Your task to perform on an android device: Go to calendar. Show me events next week Image 0: 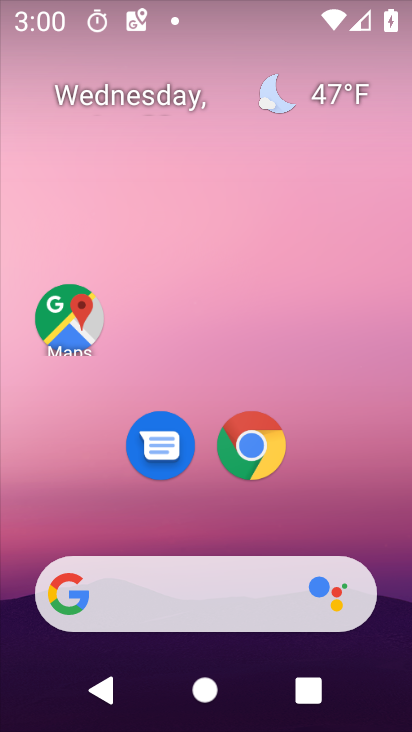
Step 0: drag from (376, 526) to (350, 0)
Your task to perform on an android device: Go to calendar. Show me events next week Image 1: 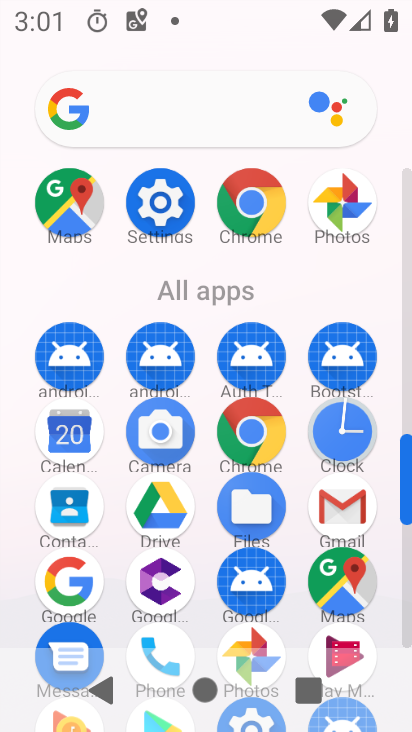
Step 1: click (68, 430)
Your task to perform on an android device: Go to calendar. Show me events next week Image 2: 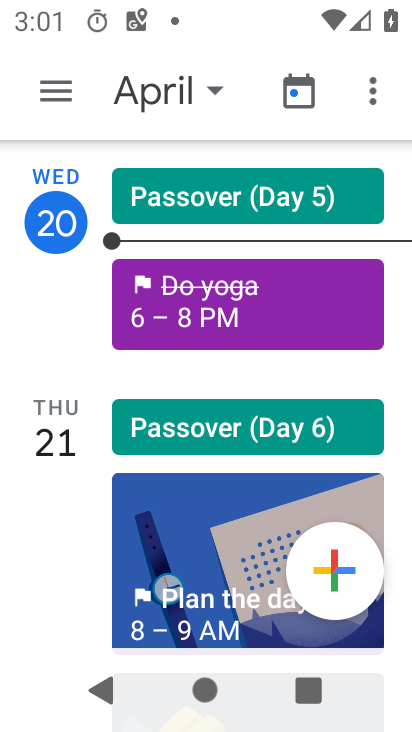
Step 2: click (217, 90)
Your task to perform on an android device: Go to calendar. Show me events next week Image 3: 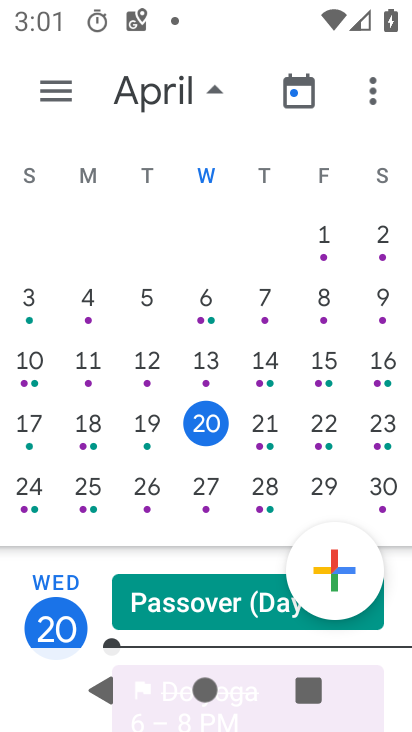
Step 3: click (47, 98)
Your task to perform on an android device: Go to calendar. Show me events next week Image 4: 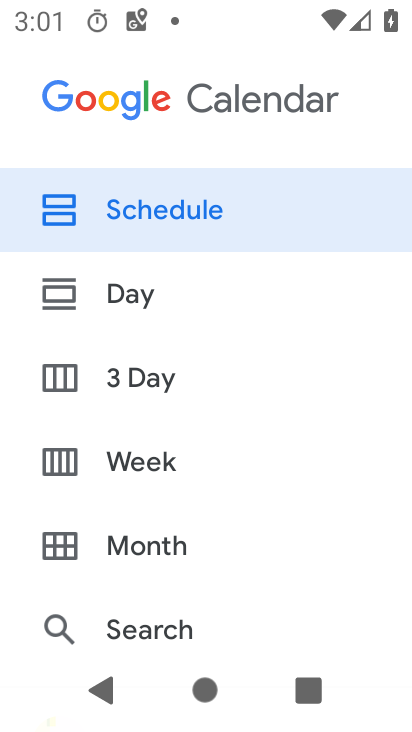
Step 4: click (131, 467)
Your task to perform on an android device: Go to calendar. Show me events next week Image 5: 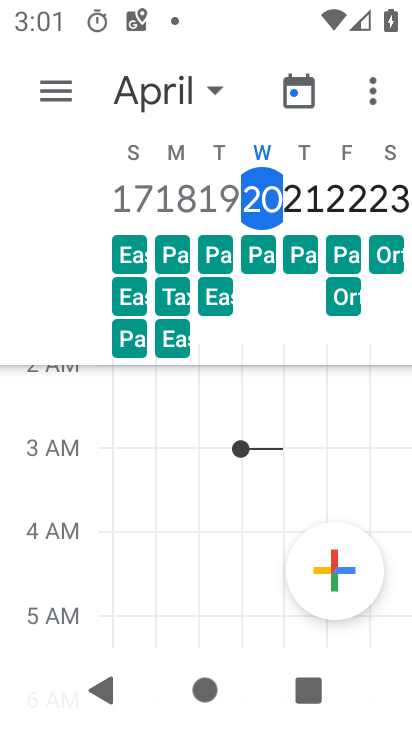
Step 5: drag from (313, 453) to (14, 538)
Your task to perform on an android device: Go to calendar. Show me events next week Image 6: 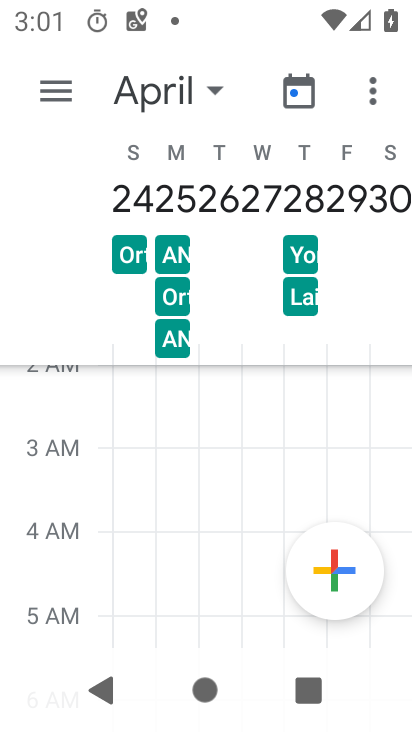
Step 6: drag from (252, 595) to (228, 303)
Your task to perform on an android device: Go to calendar. Show me events next week Image 7: 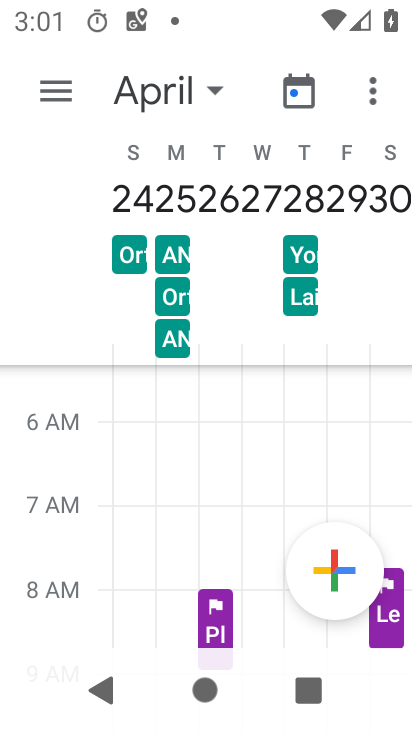
Step 7: drag from (231, 546) to (221, 373)
Your task to perform on an android device: Go to calendar. Show me events next week Image 8: 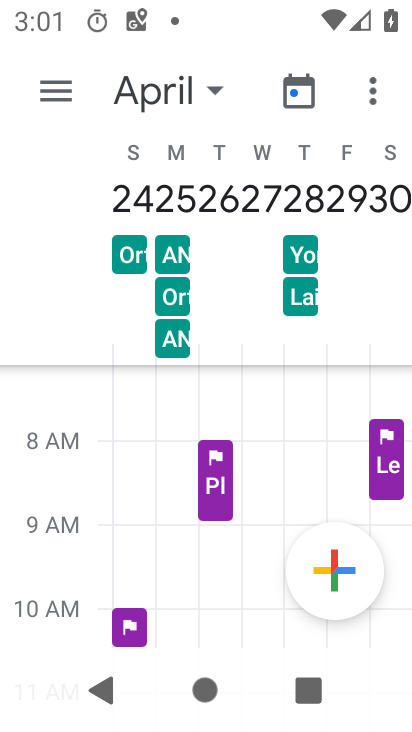
Step 8: click (215, 583)
Your task to perform on an android device: Go to calendar. Show me events next week Image 9: 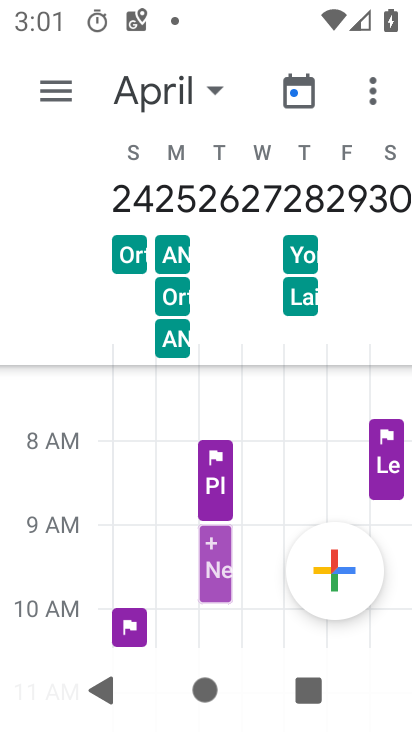
Step 9: click (205, 504)
Your task to perform on an android device: Go to calendar. Show me events next week Image 10: 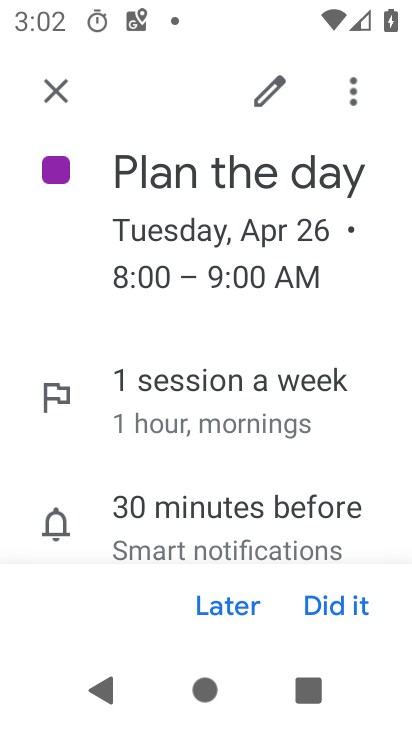
Step 10: click (64, 98)
Your task to perform on an android device: Go to calendar. Show me events next week Image 11: 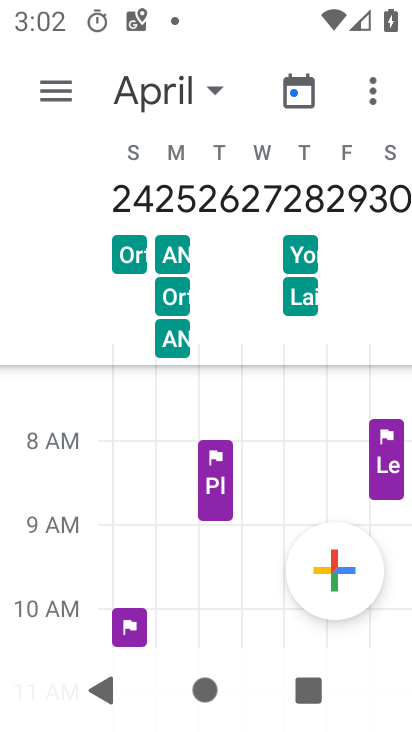
Step 11: drag from (249, 547) to (211, 396)
Your task to perform on an android device: Go to calendar. Show me events next week Image 12: 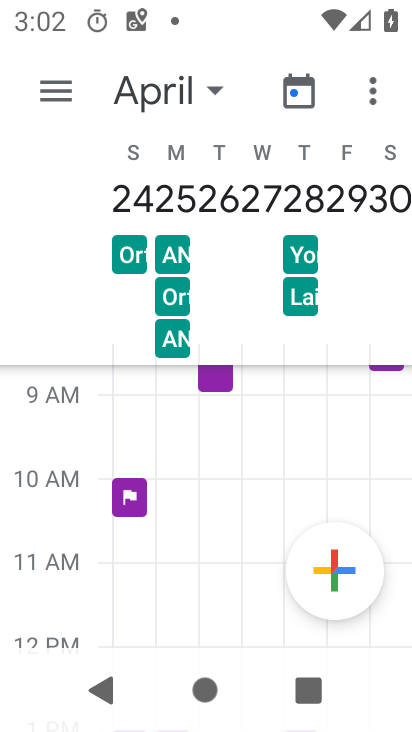
Step 12: drag from (240, 579) to (196, 427)
Your task to perform on an android device: Go to calendar. Show me events next week Image 13: 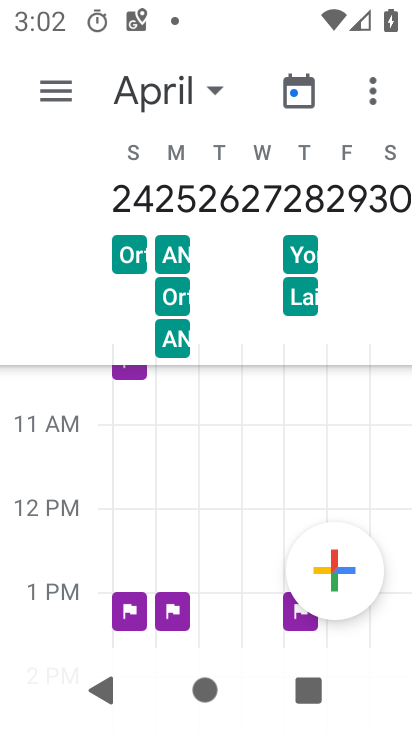
Step 13: drag from (225, 578) to (211, 359)
Your task to perform on an android device: Go to calendar. Show me events next week Image 14: 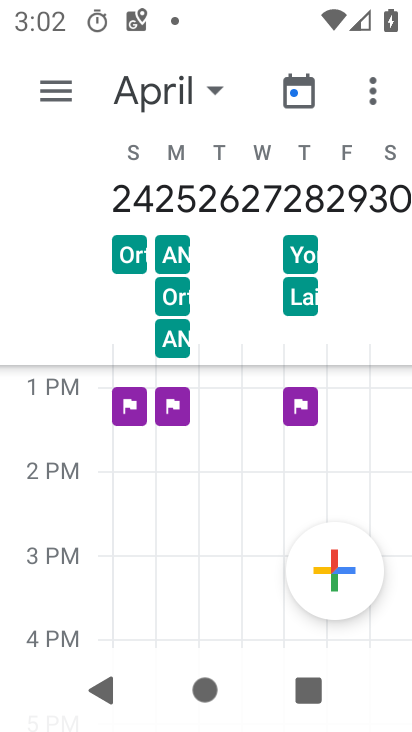
Step 14: drag from (231, 569) to (225, 376)
Your task to perform on an android device: Go to calendar. Show me events next week Image 15: 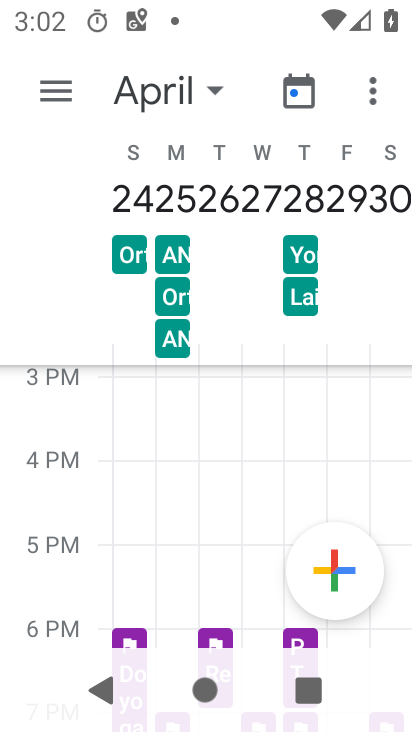
Step 15: drag from (195, 535) to (195, 376)
Your task to perform on an android device: Go to calendar. Show me events next week Image 16: 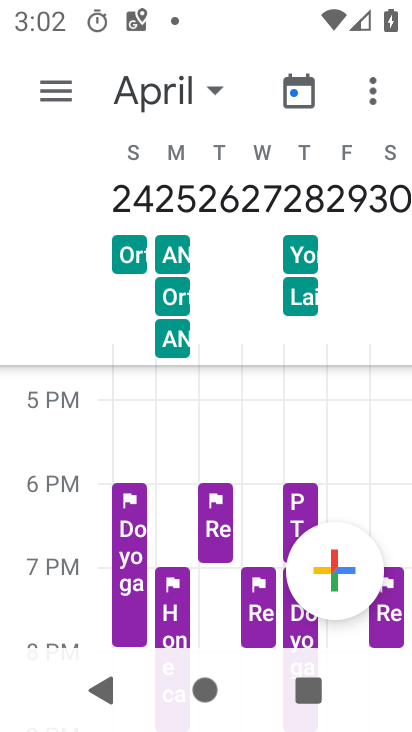
Step 16: click (134, 592)
Your task to perform on an android device: Go to calendar. Show me events next week Image 17: 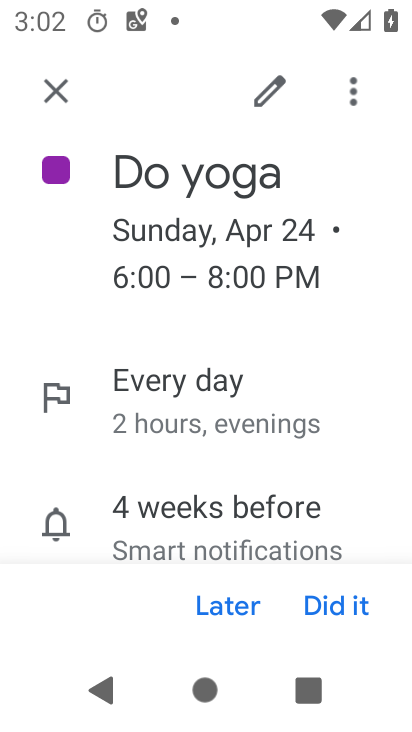
Step 17: task complete